Your task to perform on an android device: turn off wifi Image 0: 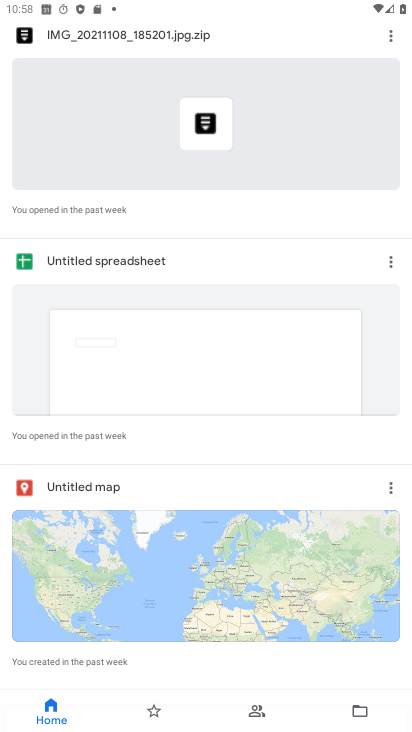
Step 0: drag from (205, 207) to (198, 656)
Your task to perform on an android device: turn off wifi Image 1: 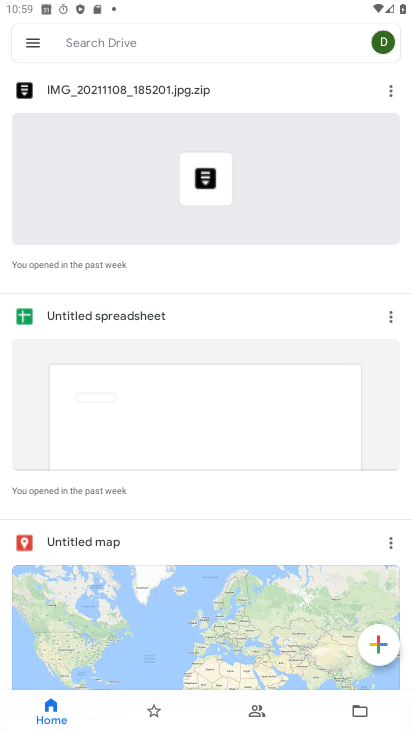
Step 1: press home button
Your task to perform on an android device: turn off wifi Image 2: 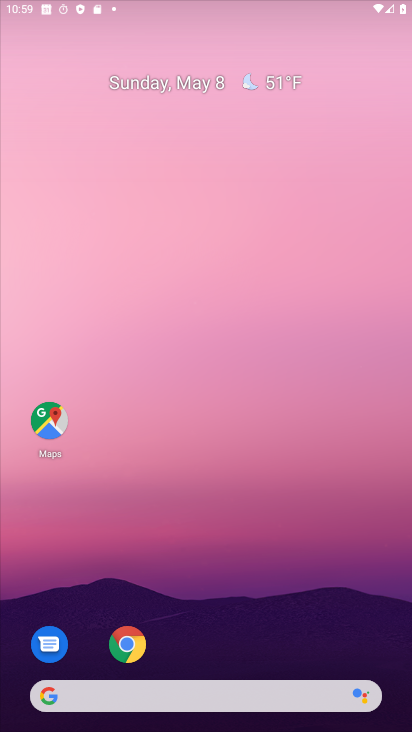
Step 2: drag from (196, 648) to (280, 118)
Your task to perform on an android device: turn off wifi Image 3: 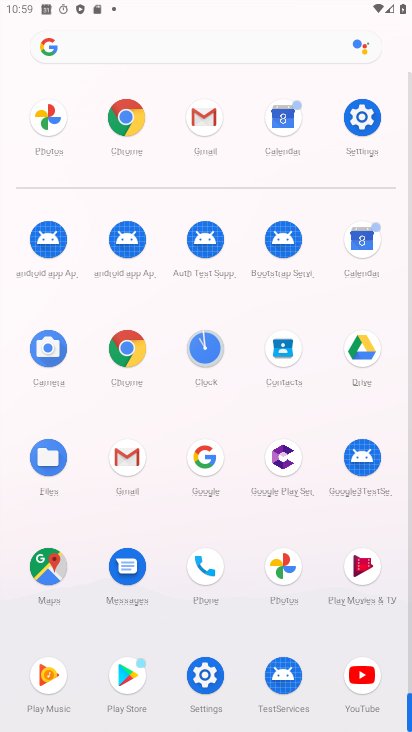
Step 3: click (369, 111)
Your task to perform on an android device: turn off wifi Image 4: 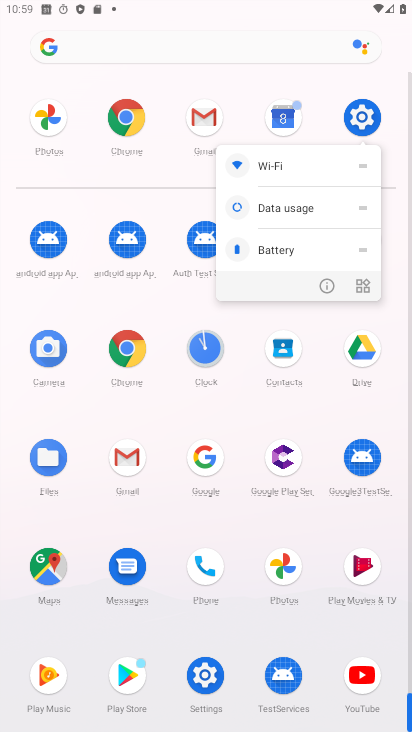
Step 4: click (325, 292)
Your task to perform on an android device: turn off wifi Image 5: 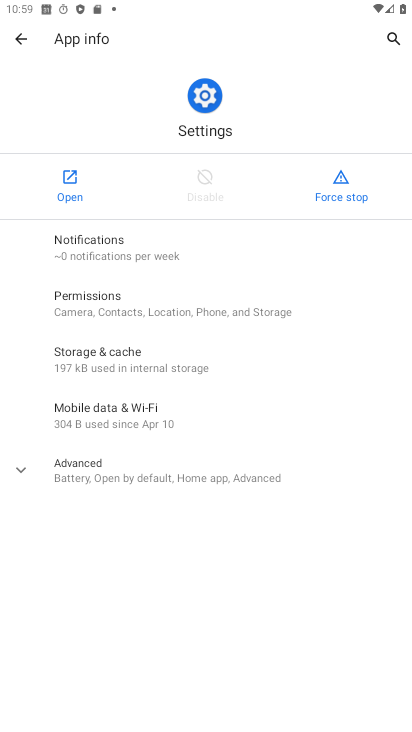
Step 5: click (74, 182)
Your task to perform on an android device: turn off wifi Image 6: 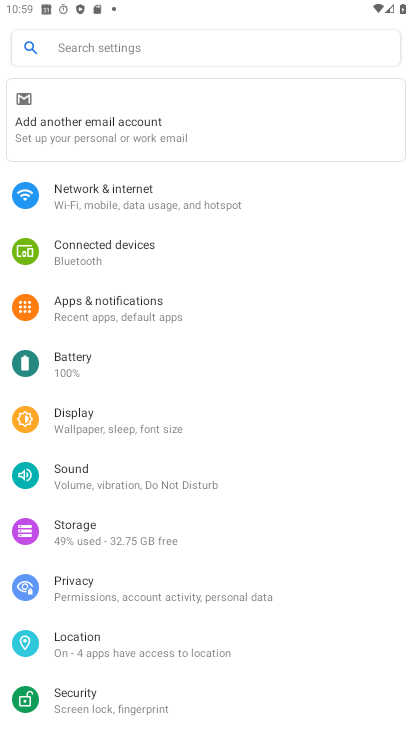
Step 6: click (150, 197)
Your task to perform on an android device: turn off wifi Image 7: 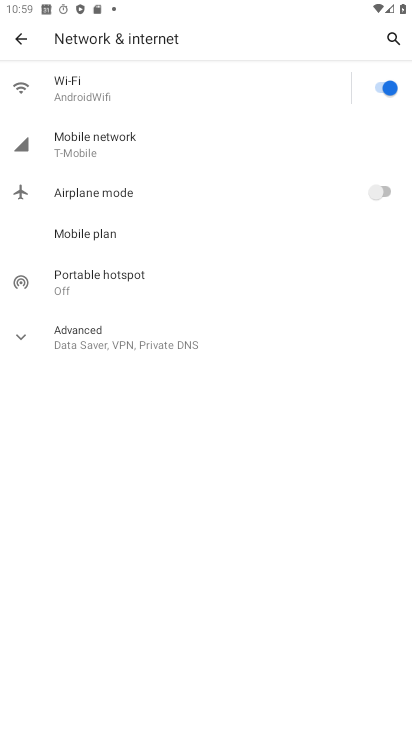
Step 7: click (227, 94)
Your task to perform on an android device: turn off wifi Image 8: 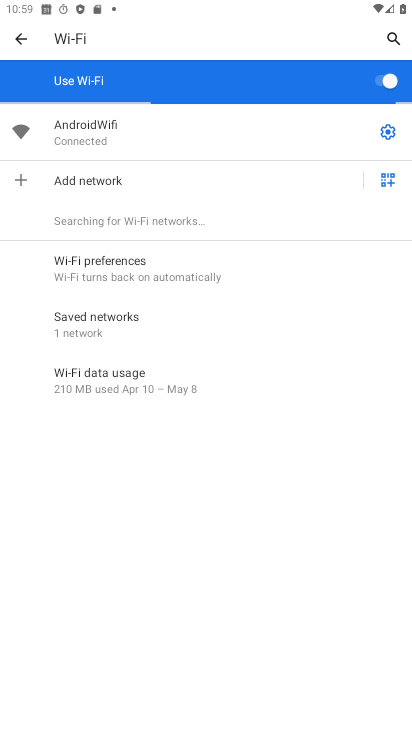
Step 8: click (379, 72)
Your task to perform on an android device: turn off wifi Image 9: 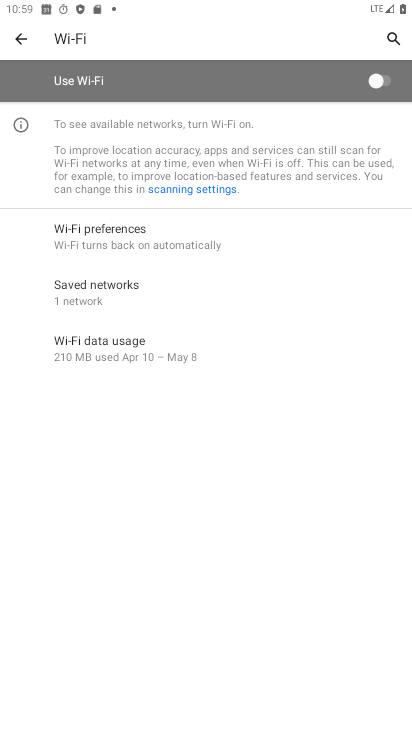
Step 9: task complete